Your task to perform on an android device: change keyboard looks Image 0: 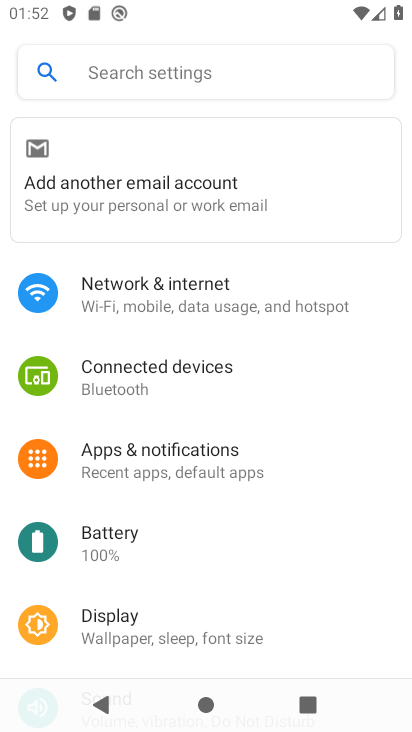
Step 0: drag from (144, 557) to (224, 70)
Your task to perform on an android device: change keyboard looks Image 1: 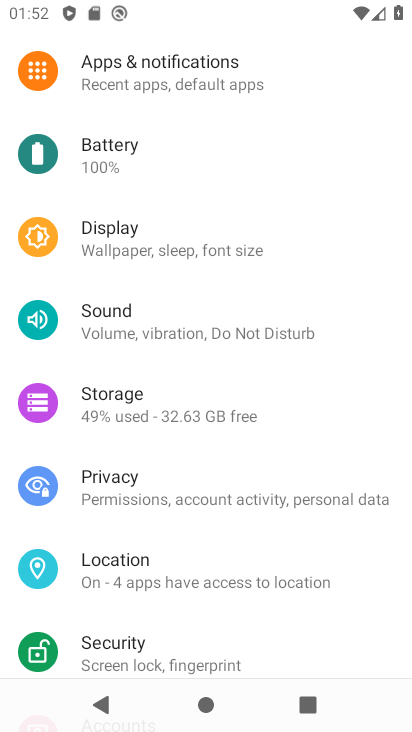
Step 1: drag from (185, 447) to (196, 169)
Your task to perform on an android device: change keyboard looks Image 2: 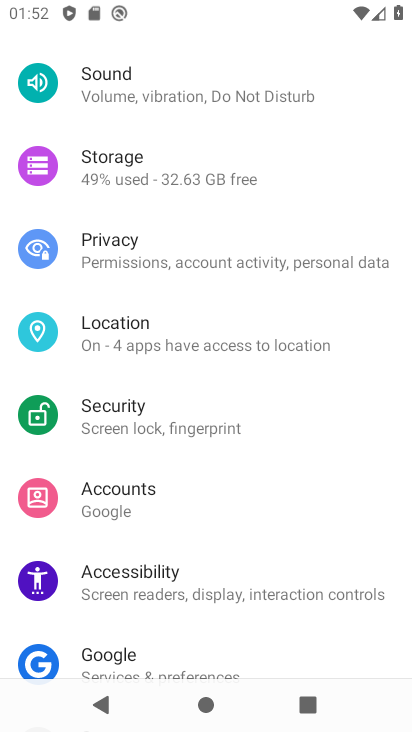
Step 2: drag from (213, 540) to (243, 236)
Your task to perform on an android device: change keyboard looks Image 3: 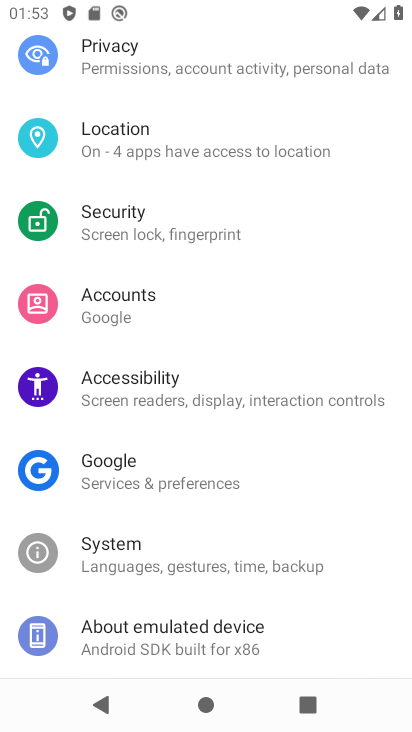
Step 3: click (143, 548)
Your task to perform on an android device: change keyboard looks Image 4: 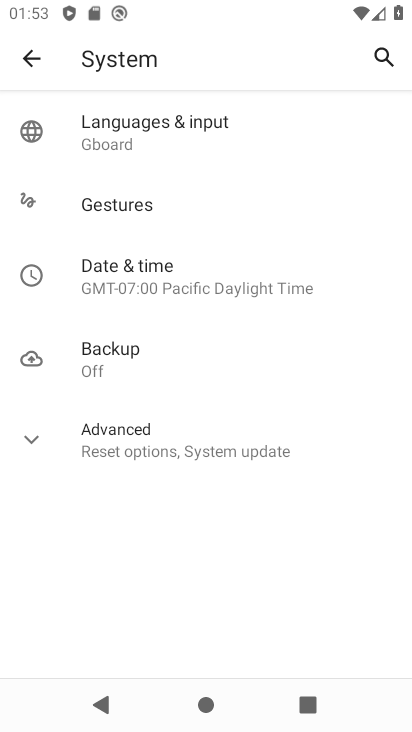
Step 4: click (111, 146)
Your task to perform on an android device: change keyboard looks Image 5: 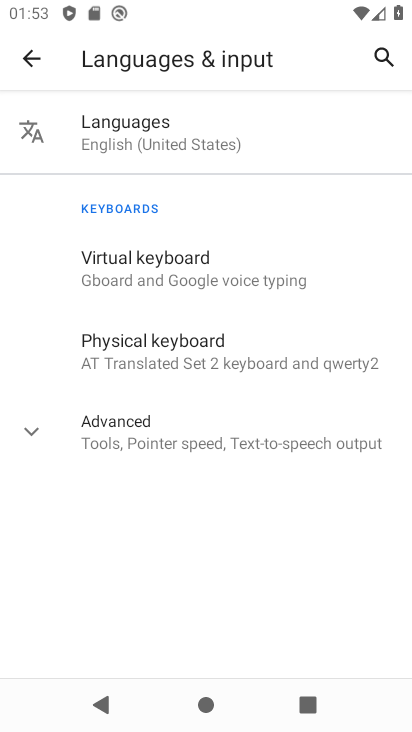
Step 5: click (133, 258)
Your task to perform on an android device: change keyboard looks Image 6: 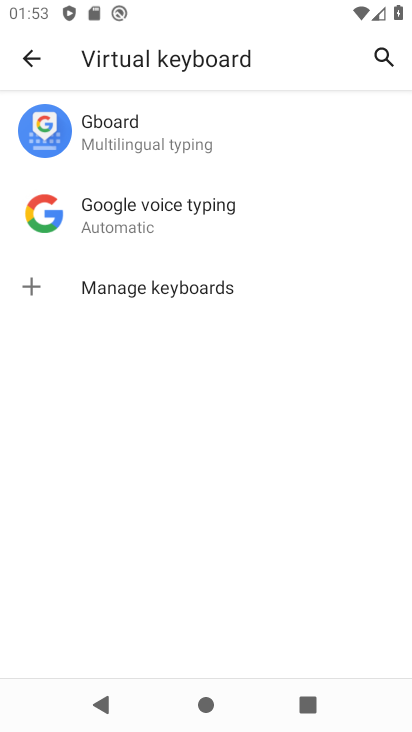
Step 6: click (121, 140)
Your task to perform on an android device: change keyboard looks Image 7: 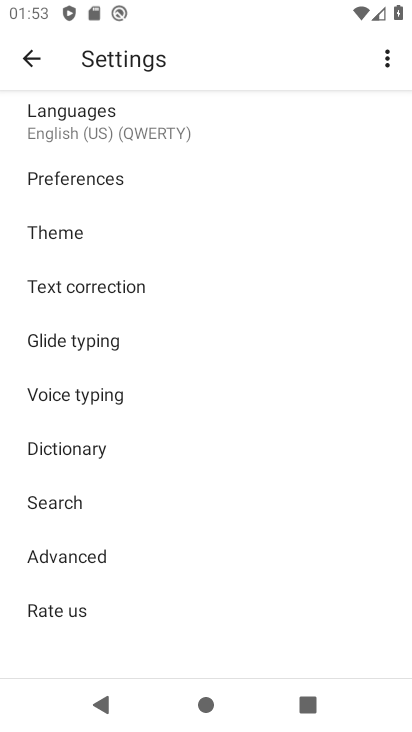
Step 7: click (67, 228)
Your task to perform on an android device: change keyboard looks Image 8: 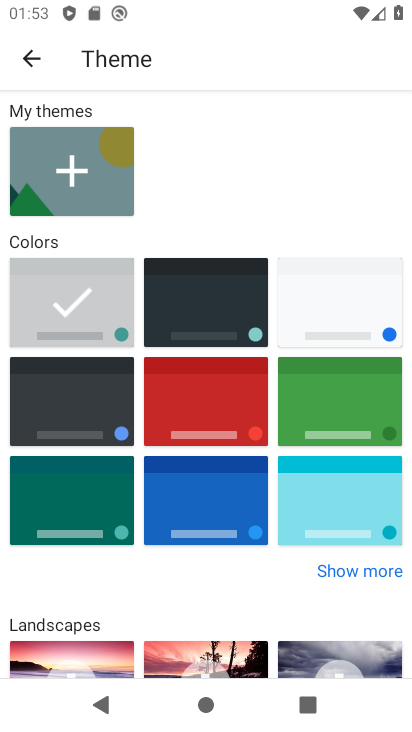
Step 8: click (204, 410)
Your task to perform on an android device: change keyboard looks Image 9: 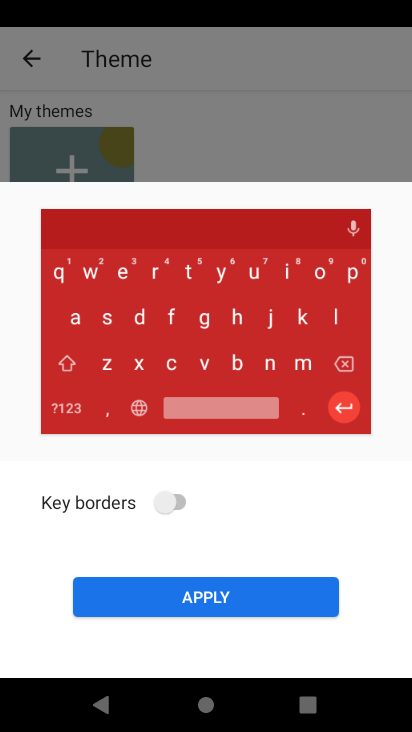
Step 9: click (180, 591)
Your task to perform on an android device: change keyboard looks Image 10: 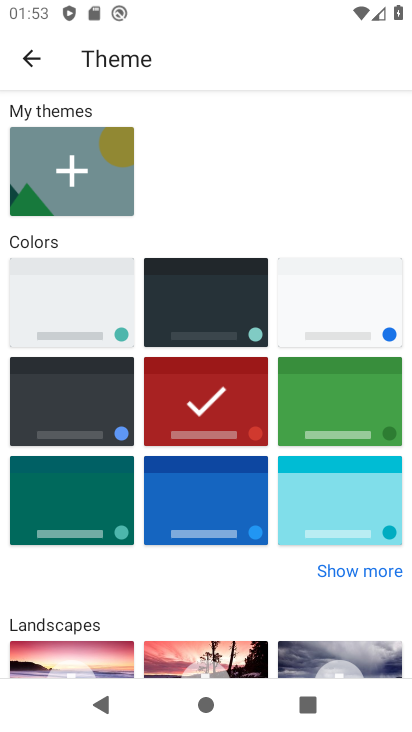
Step 10: task complete